Your task to perform on an android device: Open battery settings Image 0: 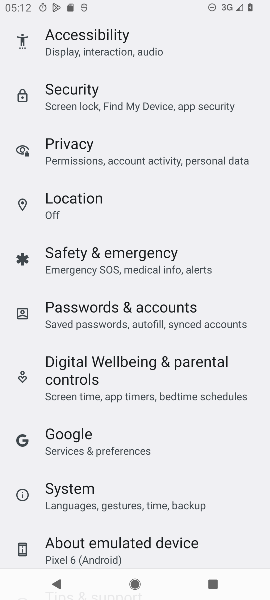
Step 0: press home button
Your task to perform on an android device: Open battery settings Image 1: 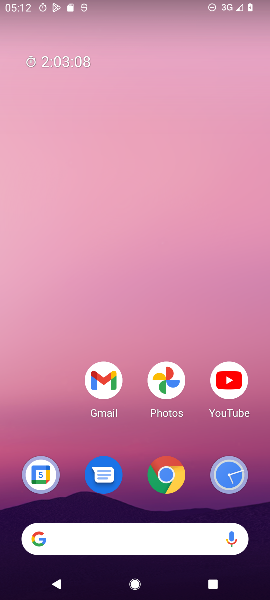
Step 1: drag from (63, 423) to (53, 212)
Your task to perform on an android device: Open battery settings Image 2: 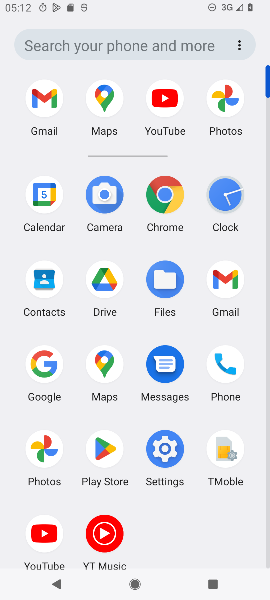
Step 2: click (163, 453)
Your task to perform on an android device: Open battery settings Image 3: 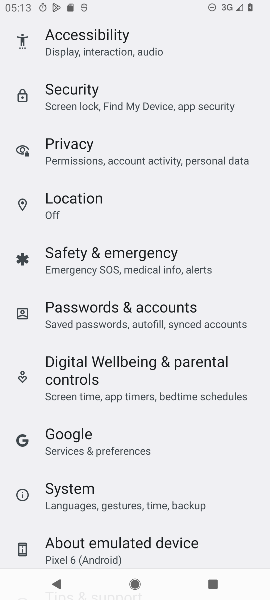
Step 3: drag from (233, 252) to (236, 300)
Your task to perform on an android device: Open battery settings Image 4: 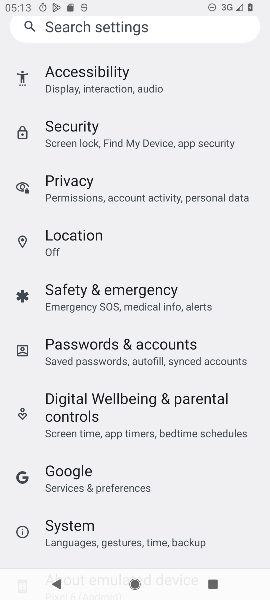
Step 4: drag from (234, 238) to (234, 313)
Your task to perform on an android device: Open battery settings Image 5: 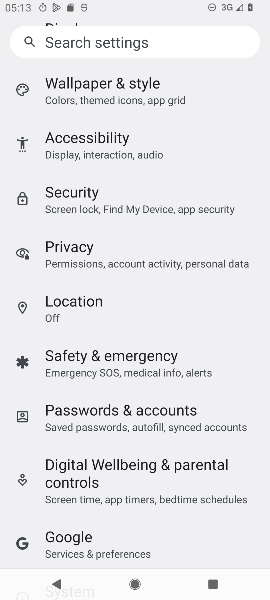
Step 5: drag from (245, 183) to (249, 276)
Your task to perform on an android device: Open battery settings Image 6: 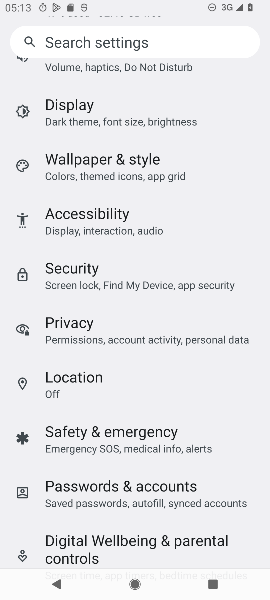
Step 6: drag from (237, 168) to (235, 257)
Your task to perform on an android device: Open battery settings Image 7: 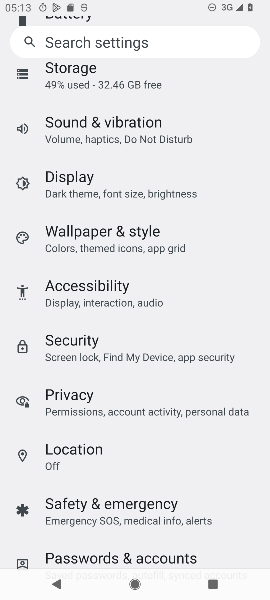
Step 7: drag from (218, 157) to (227, 273)
Your task to perform on an android device: Open battery settings Image 8: 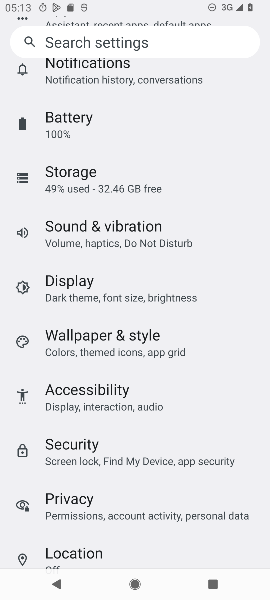
Step 8: drag from (217, 164) to (226, 256)
Your task to perform on an android device: Open battery settings Image 9: 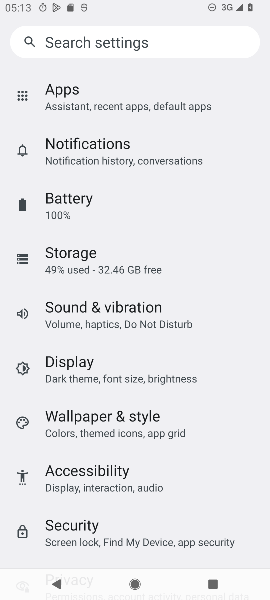
Step 9: drag from (229, 124) to (244, 272)
Your task to perform on an android device: Open battery settings Image 10: 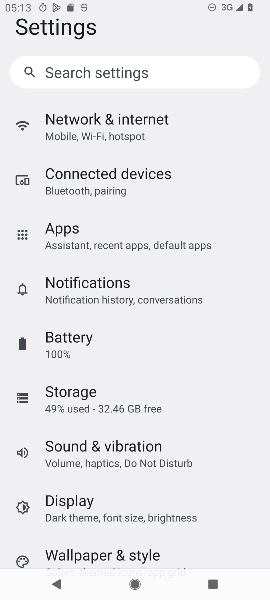
Step 10: click (145, 344)
Your task to perform on an android device: Open battery settings Image 11: 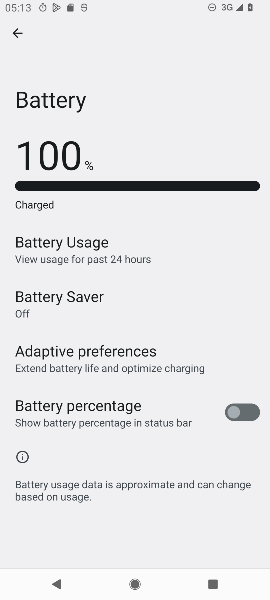
Step 11: task complete